Your task to perform on an android device: move an email to a new category in the gmail app Image 0: 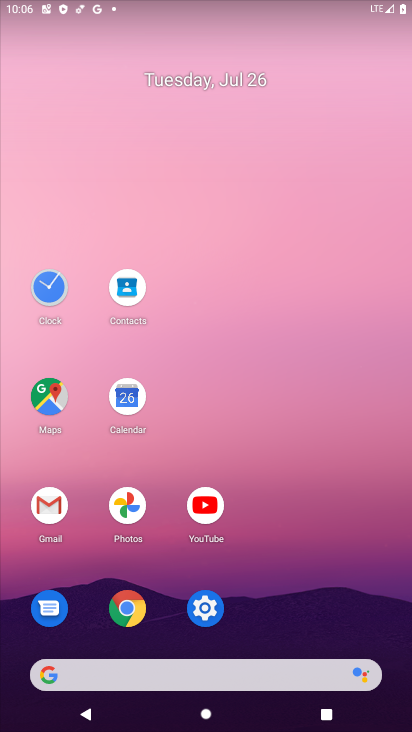
Step 0: click (48, 506)
Your task to perform on an android device: move an email to a new category in the gmail app Image 1: 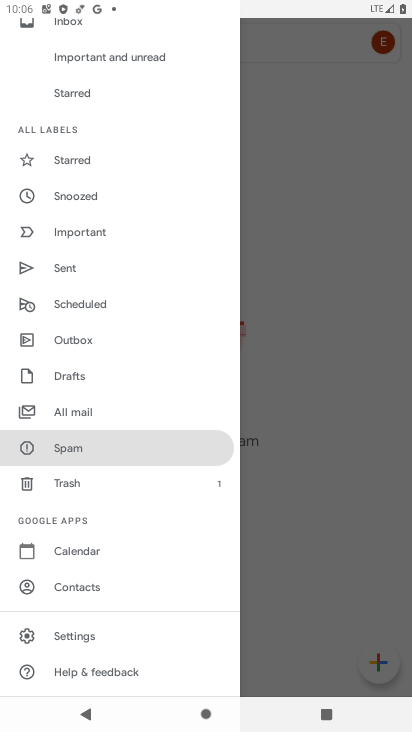
Step 1: click (66, 411)
Your task to perform on an android device: move an email to a new category in the gmail app Image 2: 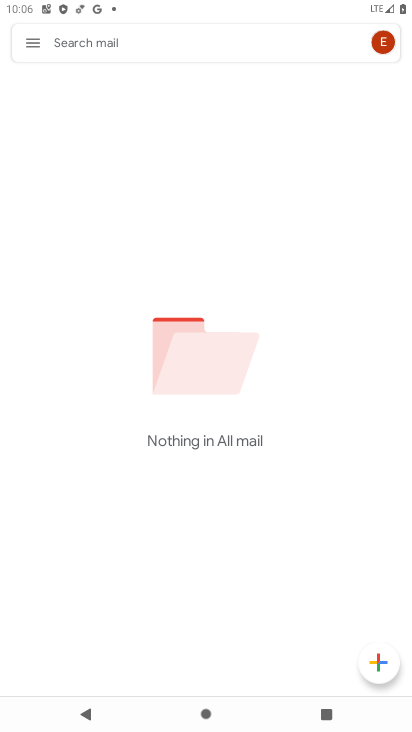
Step 2: task complete